Your task to perform on an android device: Open calendar and show me the third week of next month Image 0: 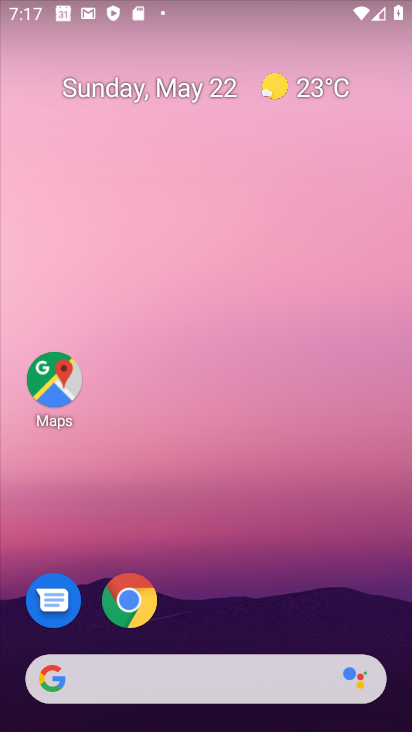
Step 0: drag from (344, 614) to (229, 151)
Your task to perform on an android device: Open calendar and show me the third week of next month Image 1: 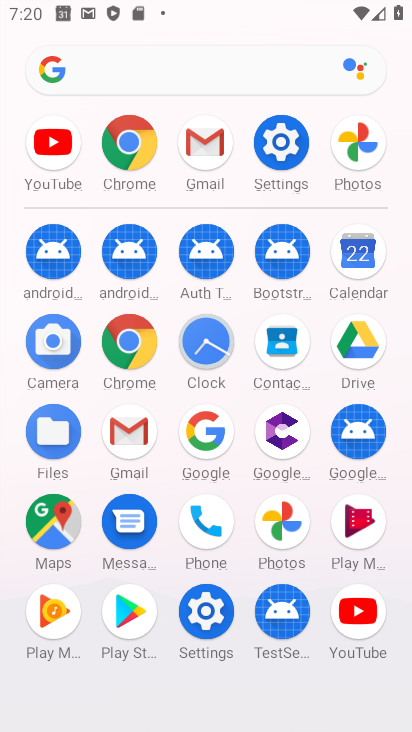
Step 1: click (362, 273)
Your task to perform on an android device: Open calendar and show me the third week of next month Image 2: 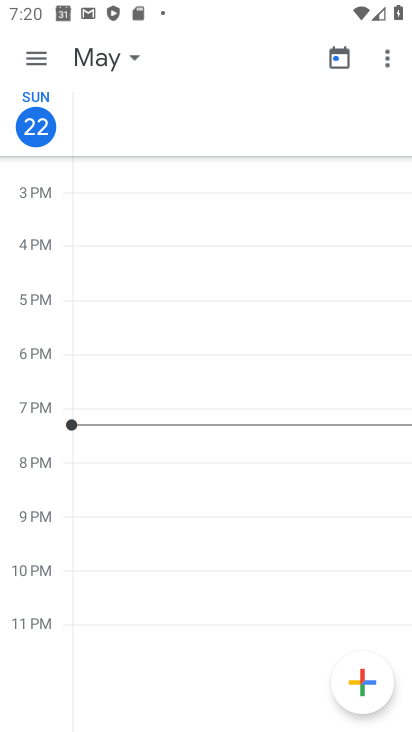
Step 2: click (95, 63)
Your task to perform on an android device: Open calendar and show me the third week of next month Image 3: 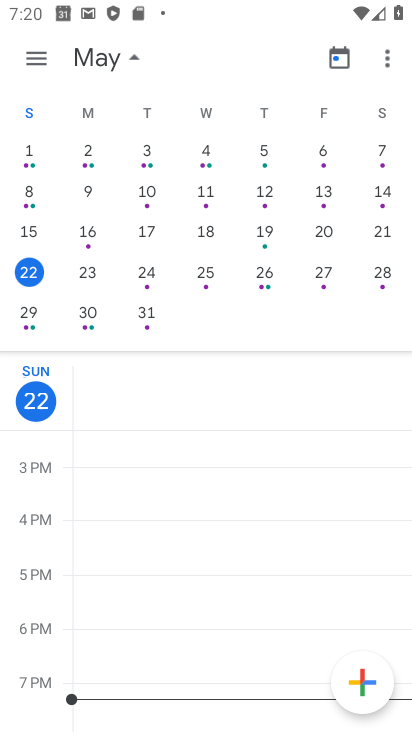
Step 3: drag from (345, 222) to (38, 141)
Your task to perform on an android device: Open calendar and show me the third week of next month Image 4: 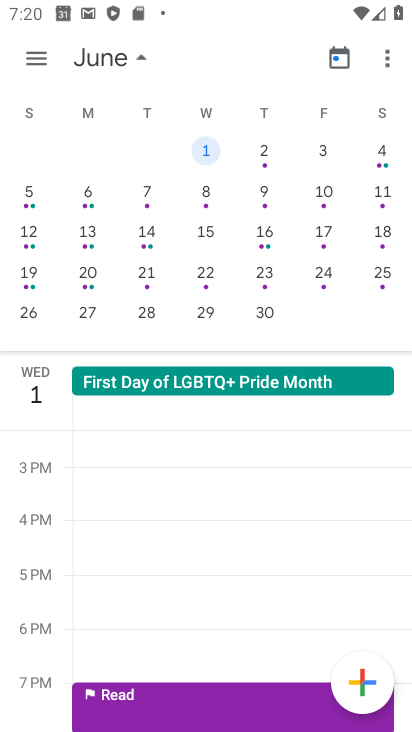
Step 4: click (86, 285)
Your task to perform on an android device: Open calendar and show me the third week of next month Image 5: 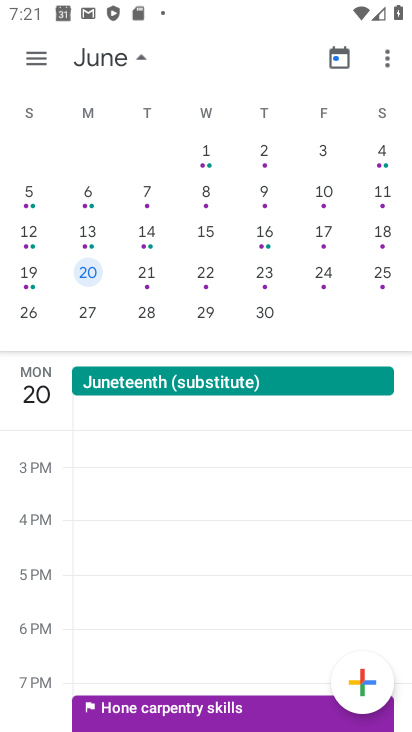
Step 5: task complete